Your task to perform on an android device: Turn off the flashlight Image 0: 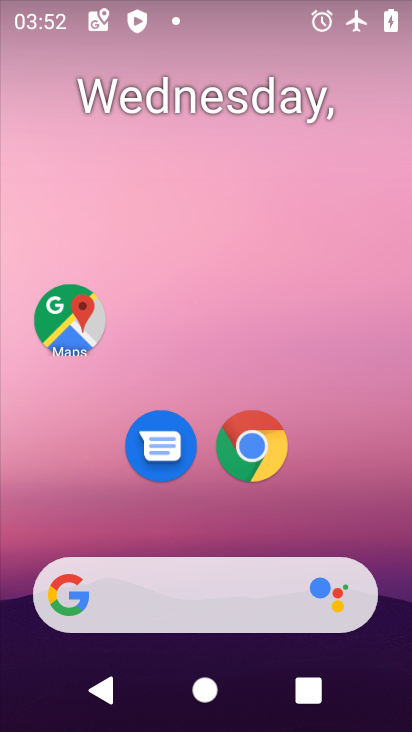
Step 0: drag from (223, 523) to (224, 153)
Your task to perform on an android device: Turn off the flashlight Image 1: 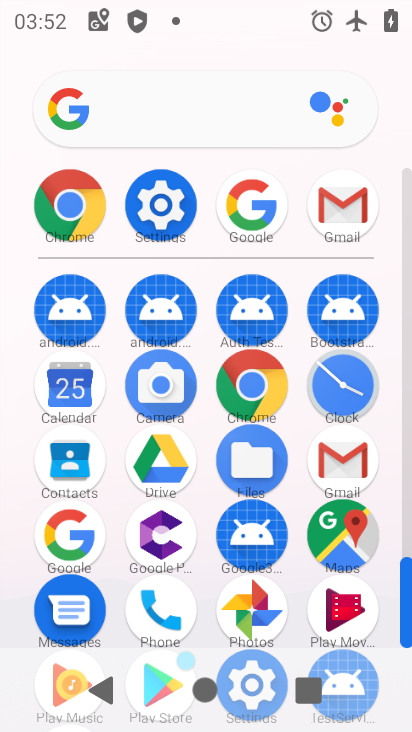
Step 1: click (178, 203)
Your task to perform on an android device: Turn off the flashlight Image 2: 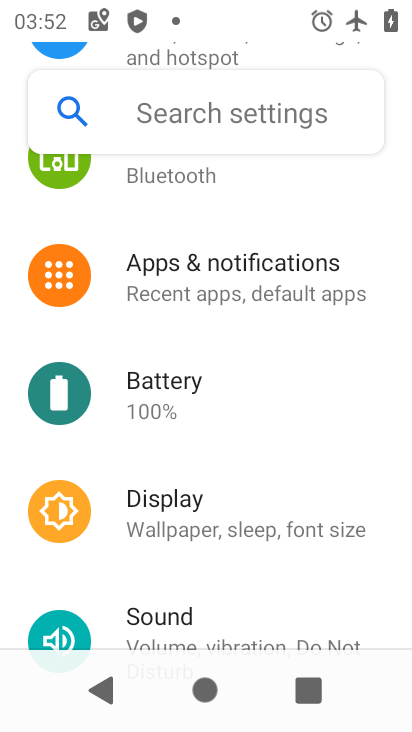
Step 2: click (198, 272)
Your task to perform on an android device: Turn off the flashlight Image 3: 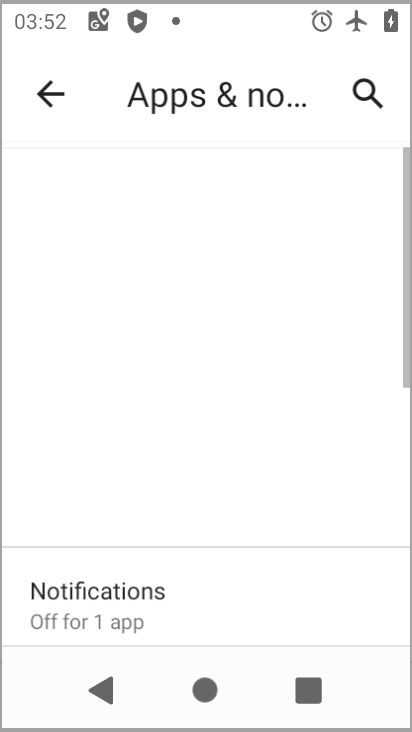
Step 3: task complete